Your task to perform on an android device: How big is a tiger? Image 0: 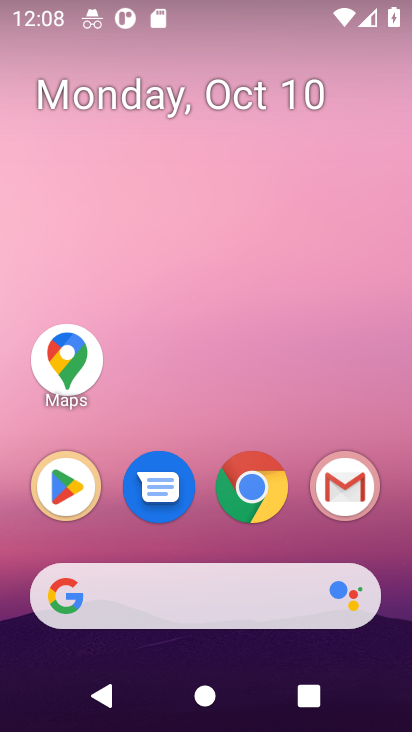
Step 0: click (264, 494)
Your task to perform on an android device: How big is a tiger? Image 1: 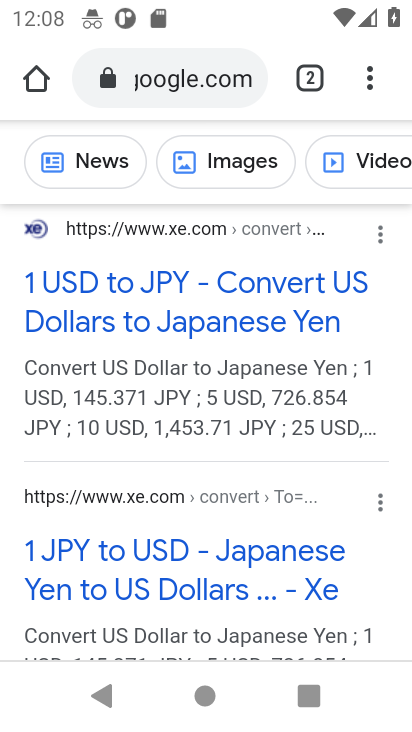
Step 1: click (172, 86)
Your task to perform on an android device: How big is a tiger? Image 2: 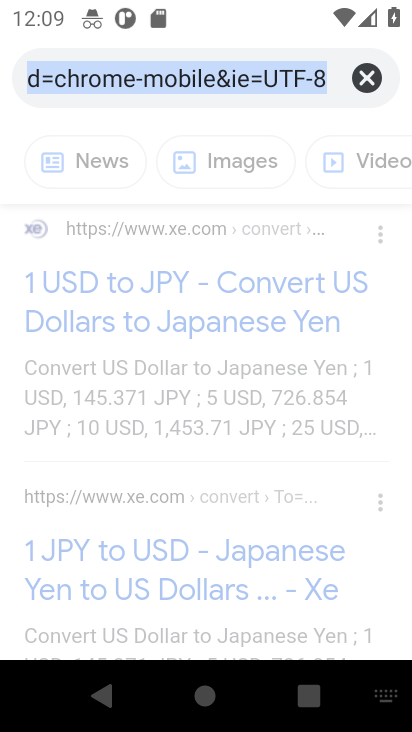
Step 2: type "how big is a tiger"
Your task to perform on an android device: How big is a tiger? Image 3: 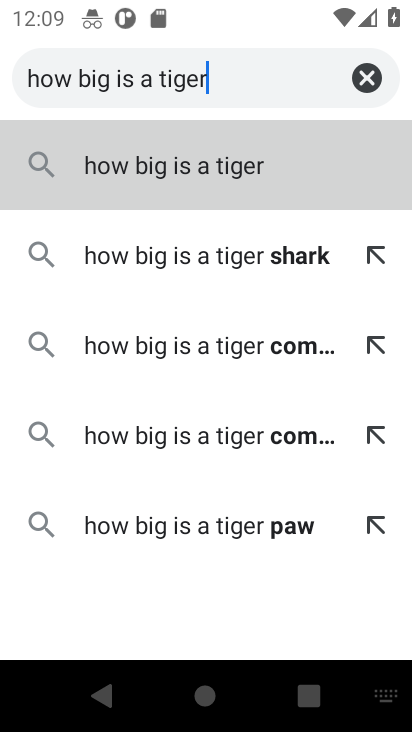
Step 3: type ""
Your task to perform on an android device: How big is a tiger? Image 4: 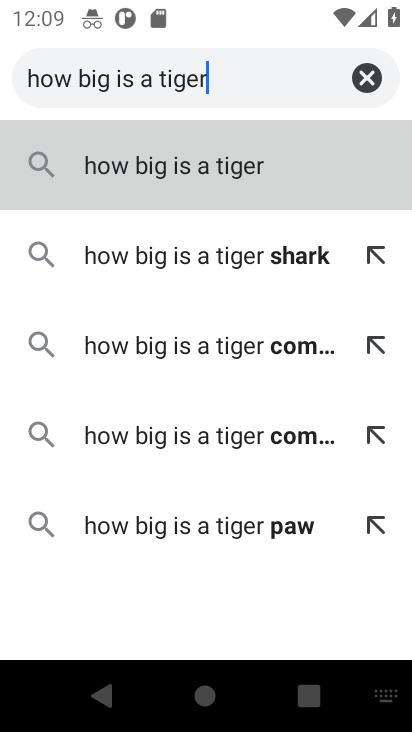
Step 4: press enter
Your task to perform on an android device: How big is a tiger? Image 5: 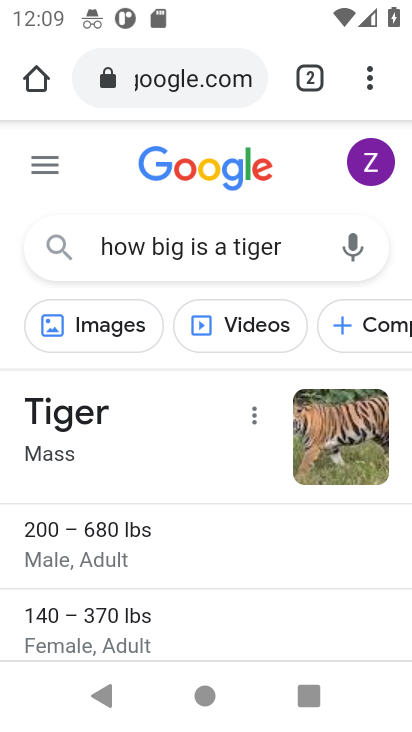
Step 5: task complete